Your task to perform on an android device: Open Google Maps and go to "Timeline" Image 0: 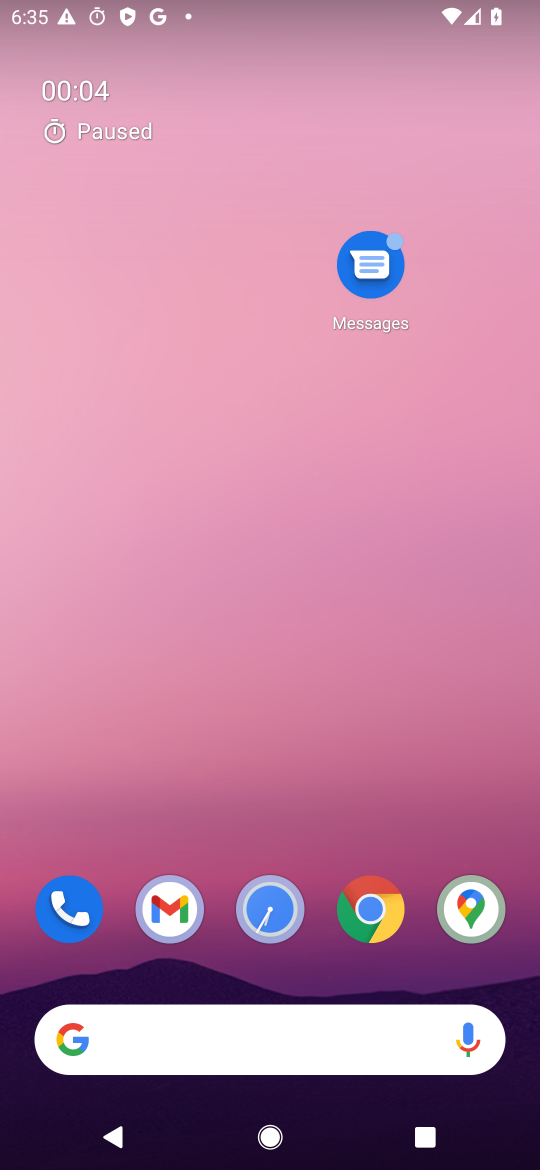
Step 0: drag from (308, 1025) to (539, 341)
Your task to perform on an android device: Open Google Maps and go to "Timeline" Image 1: 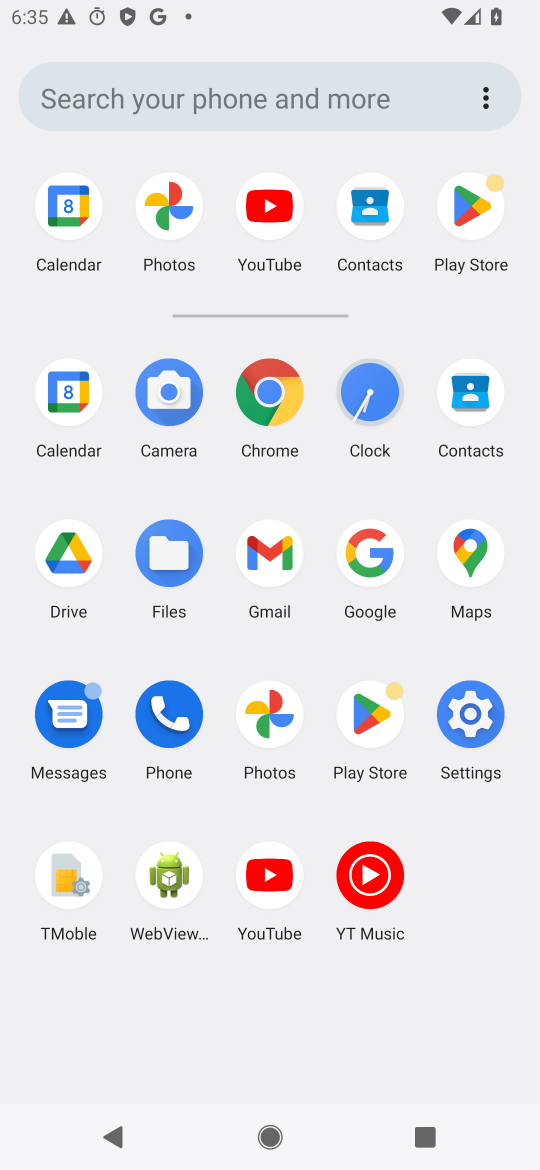
Step 1: click (462, 536)
Your task to perform on an android device: Open Google Maps and go to "Timeline" Image 2: 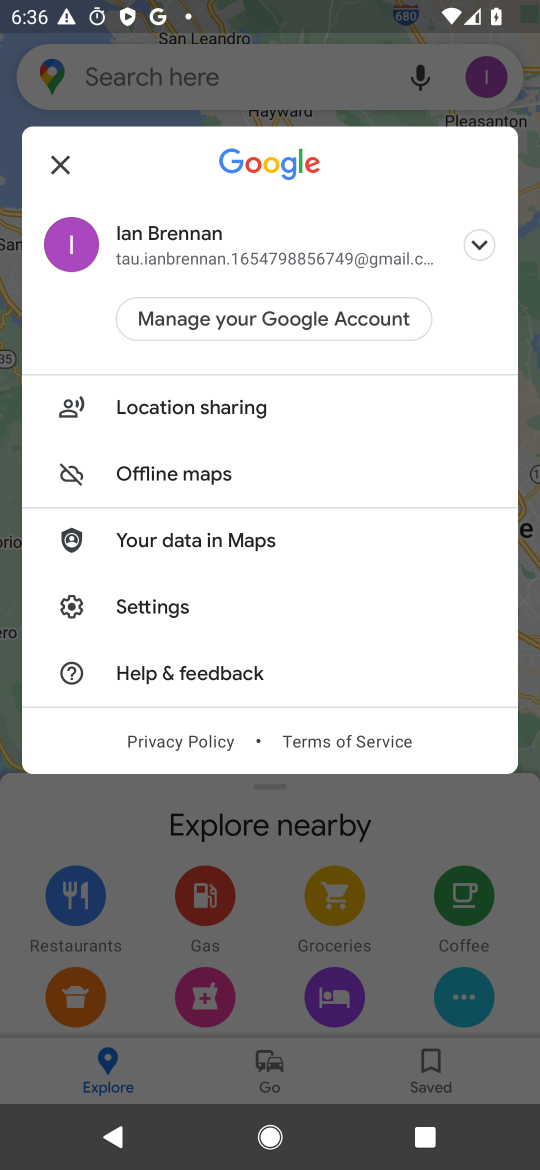
Step 2: task complete